Your task to perform on an android device: Open Google Image 0: 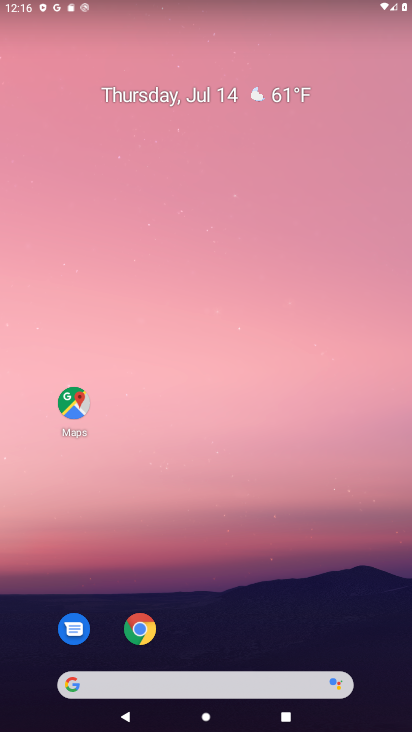
Step 0: click (125, 675)
Your task to perform on an android device: Open Google Image 1: 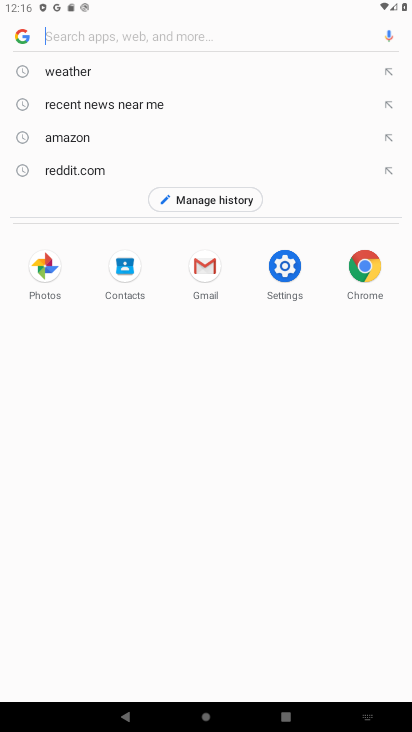
Step 1: task complete